Your task to perform on an android device: Go to eBay Image 0: 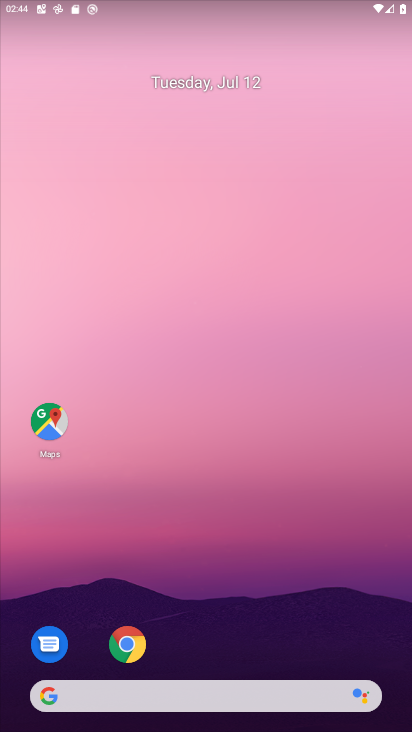
Step 0: drag from (211, 660) to (129, 86)
Your task to perform on an android device: Go to eBay Image 1: 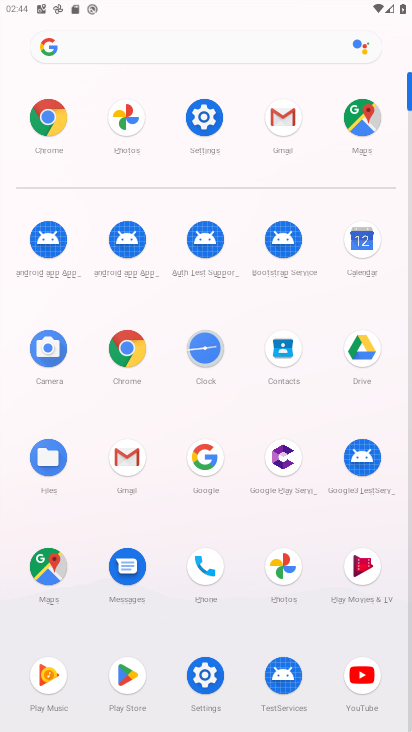
Step 1: click (32, 122)
Your task to perform on an android device: Go to eBay Image 2: 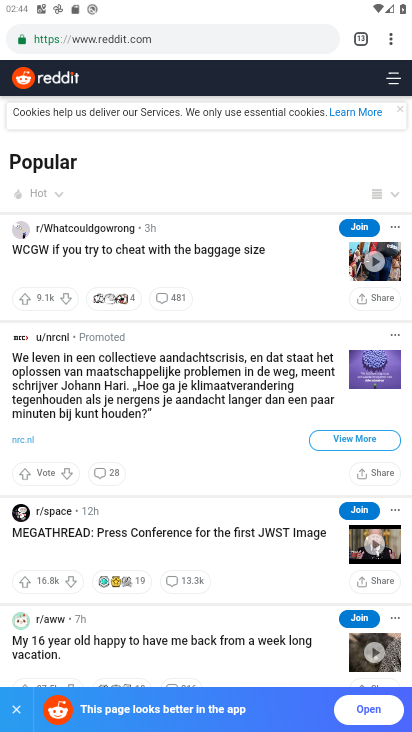
Step 2: click (358, 28)
Your task to perform on an android device: Go to eBay Image 3: 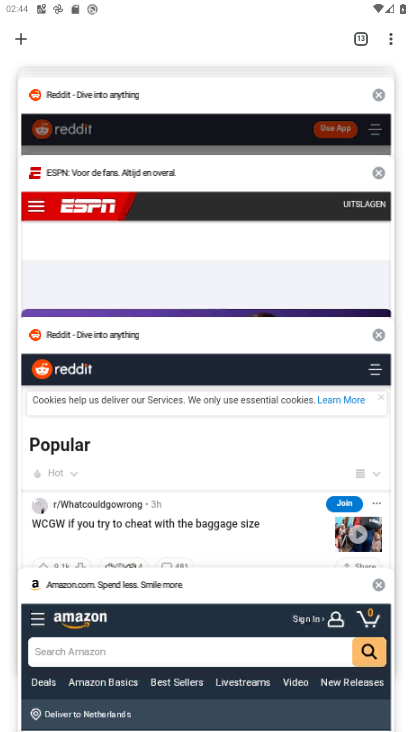
Step 3: click (18, 36)
Your task to perform on an android device: Go to eBay Image 4: 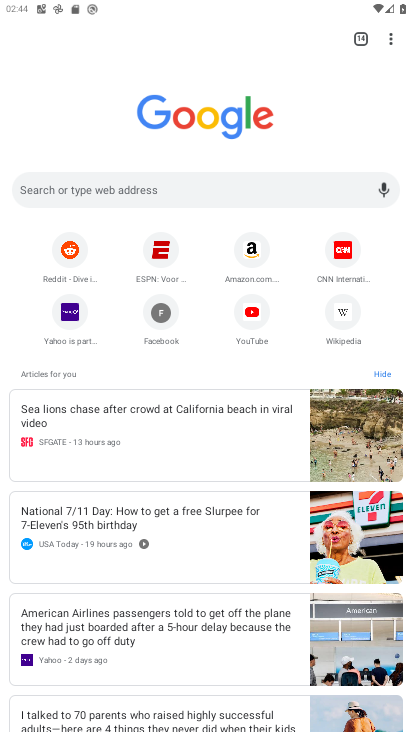
Step 4: click (171, 173)
Your task to perform on an android device: Go to eBay Image 5: 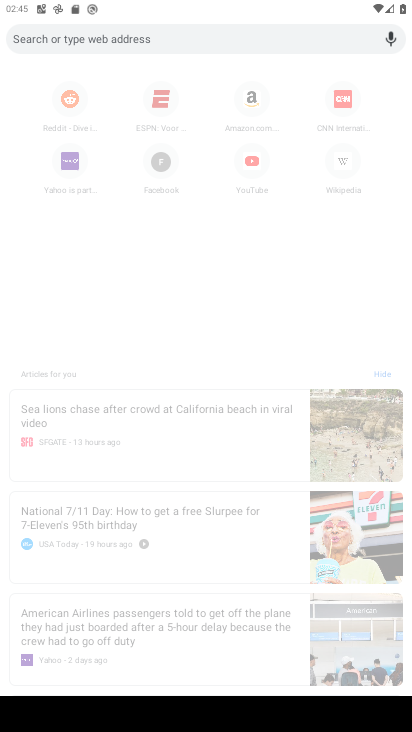
Step 5: type "ebat"
Your task to perform on an android device: Go to eBay Image 6: 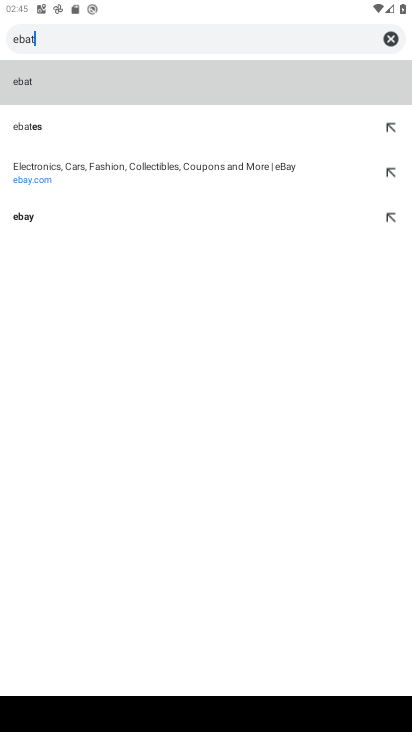
Step 6: drag from (114, 96) to (123, 212)
Your task to perform on an android device: Go to eBay Image 7: 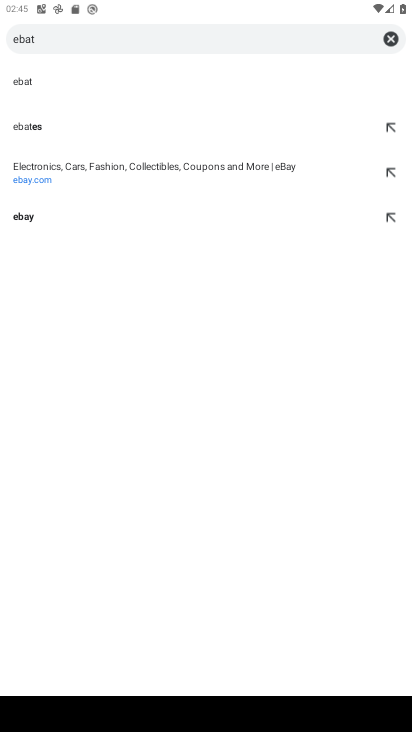
Step 7: click (105, 183)
Your task to perform on an android device: Go to eBay Image 8: 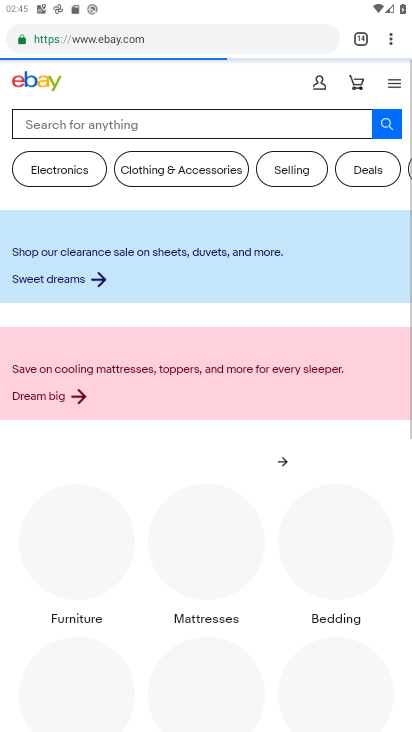
Step 8: task complete